Your task to perform on an android device: Open maps Image 0: 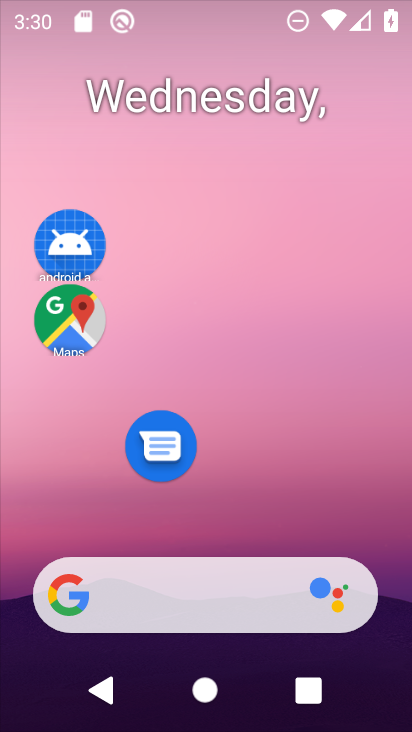
Step 0: drag from (314, 485) to (319, 127)
Your task to perform on an android device: Open maps Image 1: 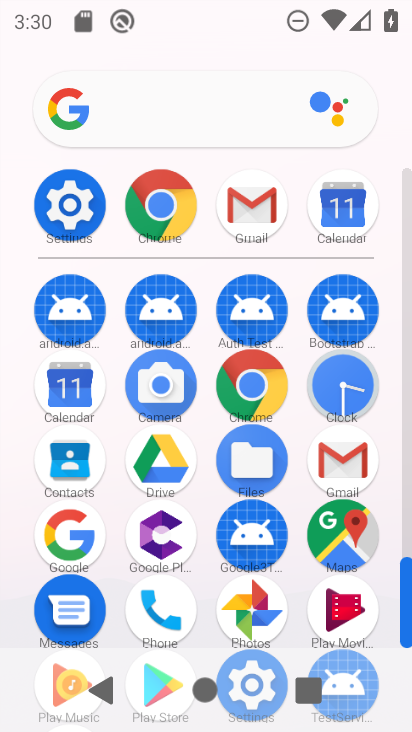
Step 1: click (153, 222)
Your task to perform on an android device: Open maps Image 2: 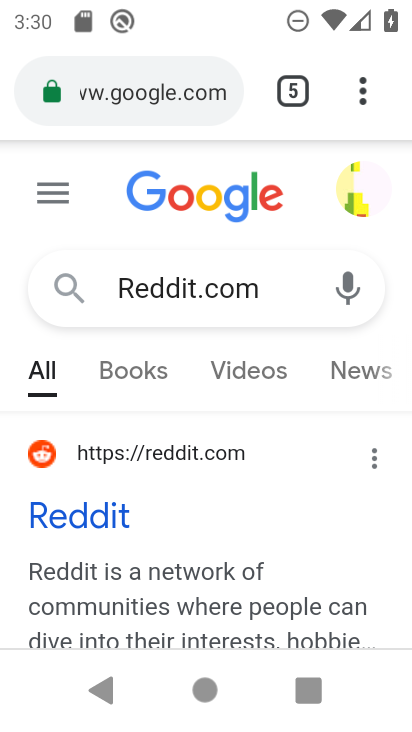
Step 2: press home button
Your task to perform on an android device: Open maps Image 3: 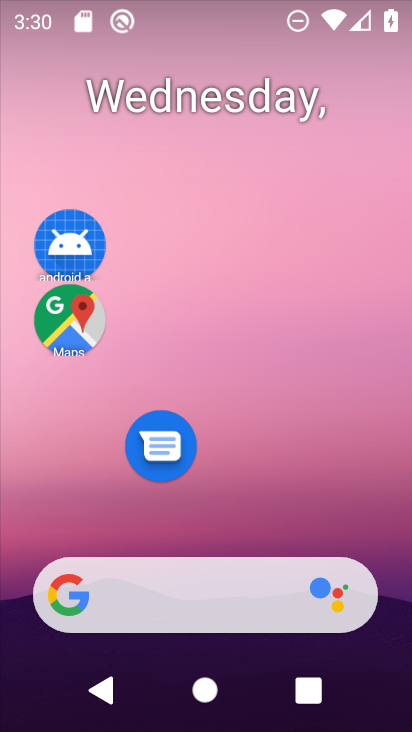
Step 3: drag from (265, 485) to (303, 62)
Your task to perform on an android device: Open maps Image 4: 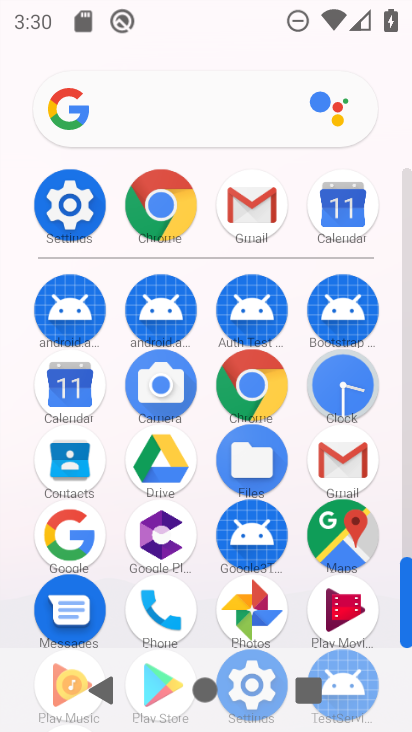
Step 4: click (316, 526)
Your task to perform on an android device: Open maps Image 5: 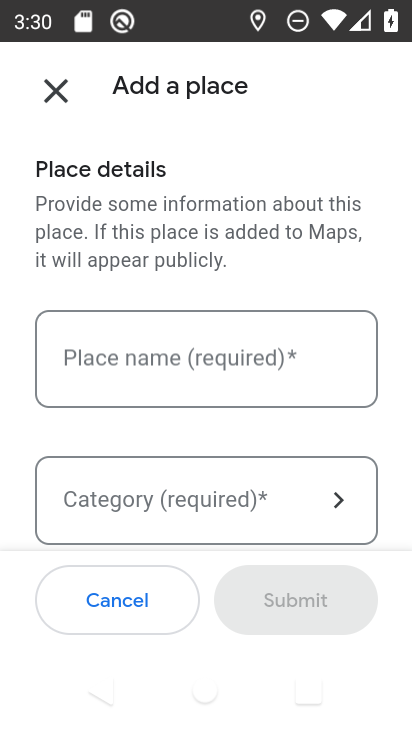
Step 5: task complete